Your task to perform on an android device: Empty the shopping cart on bestbuy.com. Add dell xps to the cart on bestbuy.com Image 0: 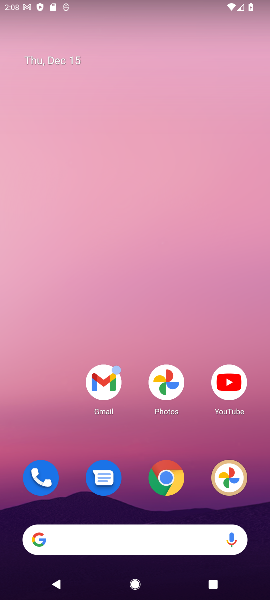
Step 0: click (169, 477)
Your task to perform on an android device: Empty the shopping cart on bestbuy.com. Add dell xps to the cart on bestbuy.com Image 1: 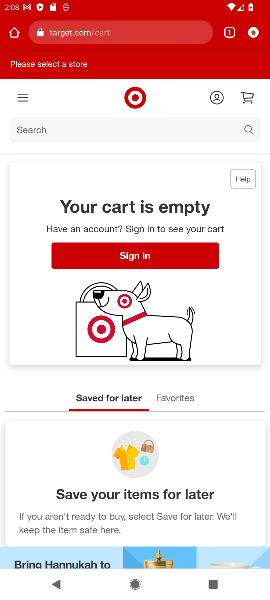
Step 1: click (146, 38)
Your task to perform on an android device: Empty the shopping cart on bestbuy.com. Add dell xps to the cart on bestbuy.com Image 2: 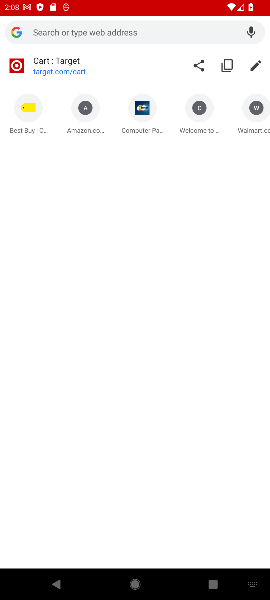
Step 2: click (10, 123)
Your task to perform on an android device: Empty the shopping cart on bestbuy.com. Add dell xps to the cart on bestbuy.com Image 3: 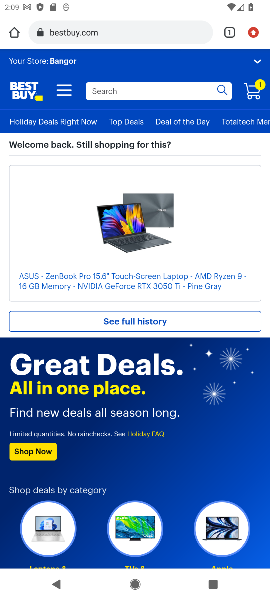
Step 3: click (249, 92)
Your task to perform on an android device: Empty the shopping cart on bestbuy.com. Add dell xps to the cart on bestbuy.com Image 4: 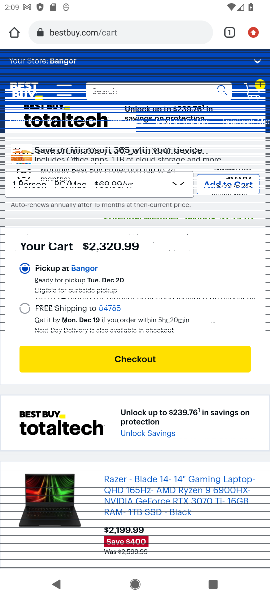
Step 4: drag from (161, 444) to (170, 344)
Your task to perform on an android device: Empty the shopping cart on bestbuy.com. Add dell xps to the cart on bestbuy.com Image 5: 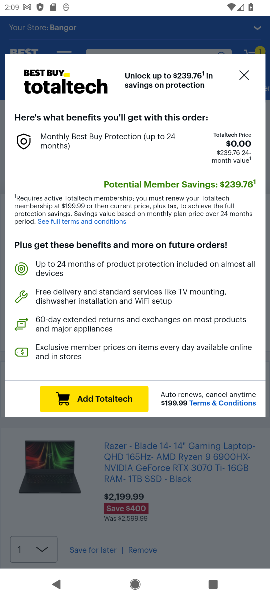
Step 5: click (243, 74)
Your task to perform on an android device: Empty the shopping cart on bestbuy.com. Add dell xps to the cart on bestbuy.com Image 6: 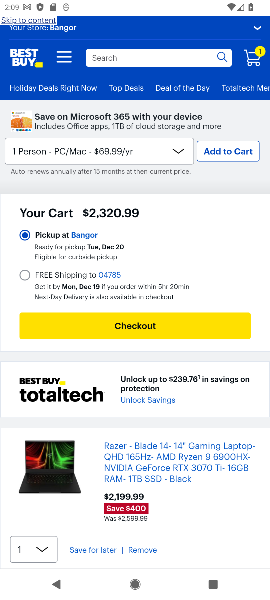
Step 6: drag from (143, 415) to (152, 231)
Your task to perform on an android device: Empty the shopping cart on bestbuy.com. Add dell xps to the cart on bestbuy.com Image 7: 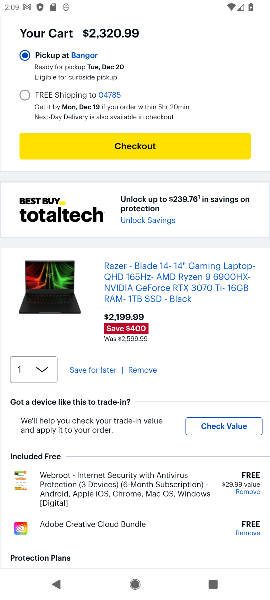
Step 7: click (136, 371)
Your task to perform on an android device: Empty the shopping cart on bestbuy.com. Add dell xps to the cart on bestbuy.com Image 8: 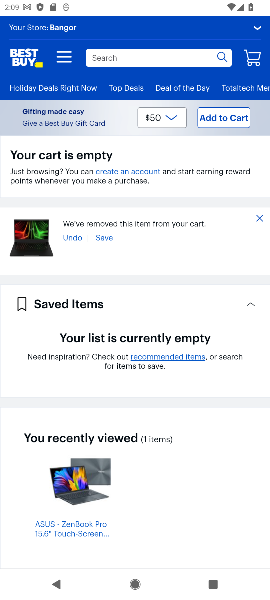
Step 8: click (116, 65)
Your task to perform on an android device: Empty the shopping cart on bestbuy.com. Add dell xps to the cart on bestbuy.com Image 9: 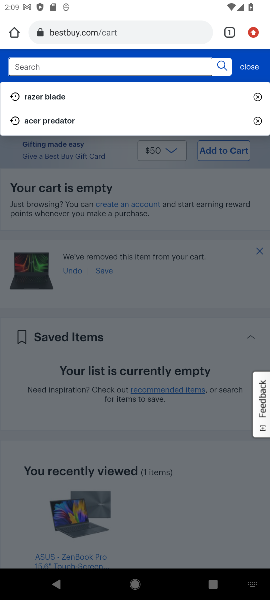
Step 9: type "dell xps"
Your task to perform on an android device: Empty the shopping cart on bestbuy.com. Add dell xps to the cart on bestbuy.com Image 10: 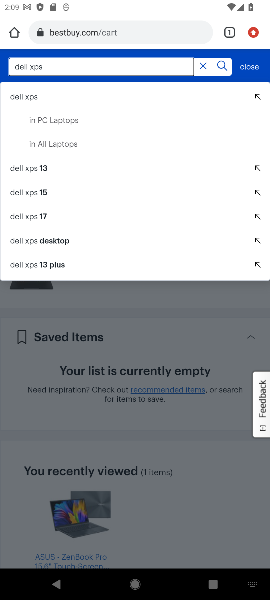
Step 10: click (23, 102)
Your task to perform on an android device: Empty the shopping cart on bestbuy.com. Add dell xps to the cart on bestbuy.com Image 11: 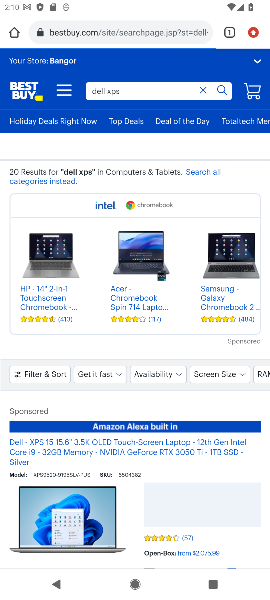
Step 11: drag from (93, 508) to (83, 325)
Your task to perform on an android device: Empty the shopping cart on bestbuy.com. Add dell xps to the cart on bestbuy.com Image 12: 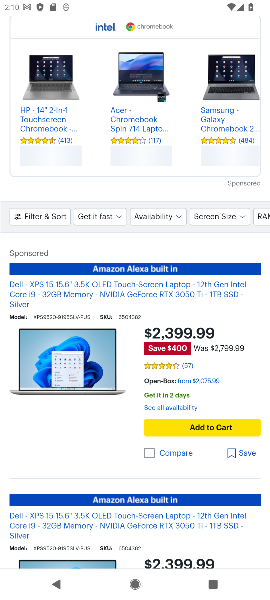
Step 12: click (164, 425)
Your task to perform on an android device: Empty the shopping cart on bestbuy.com. Add dell xps to the cart on bestbuy.com Image 13: 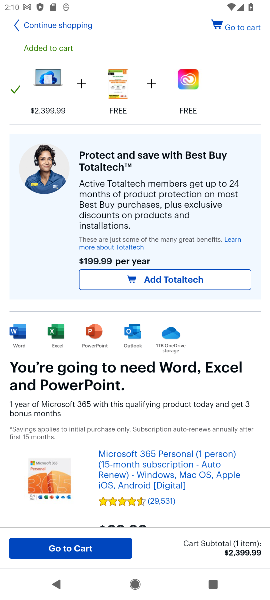
Step 13: task complete